Your task to perform on an android device: toggle pop-ups in chrome Image 0: 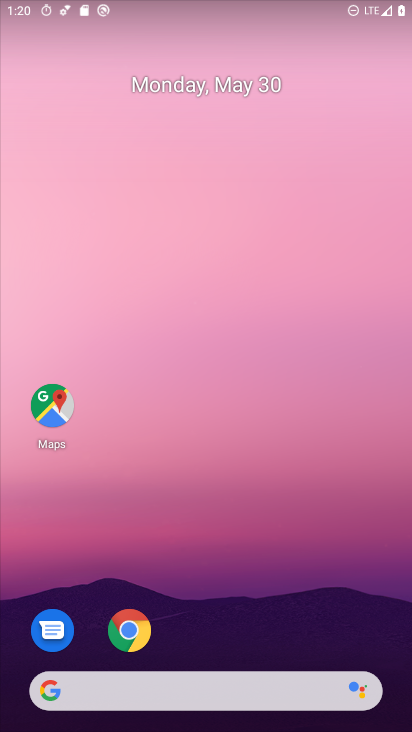
Step 0: drag from (276, 702) to (253, 252)
Your task to perform on an android device: toggle pop-ups in chrome Image 1: 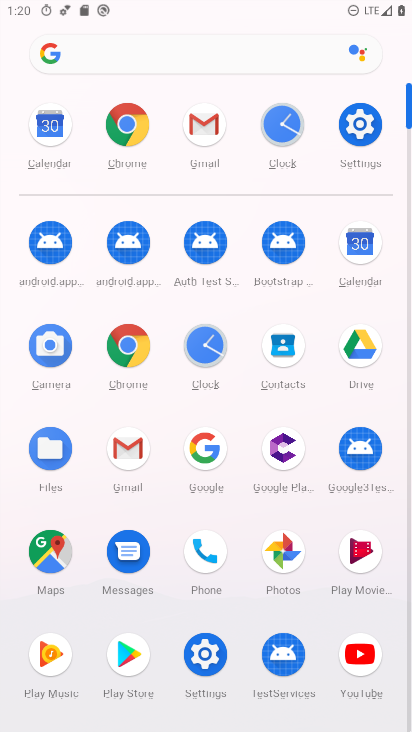
Step 1: click (122, 335)
Your task to perform on an android device: toggle pop-ups in chrome Image 2: 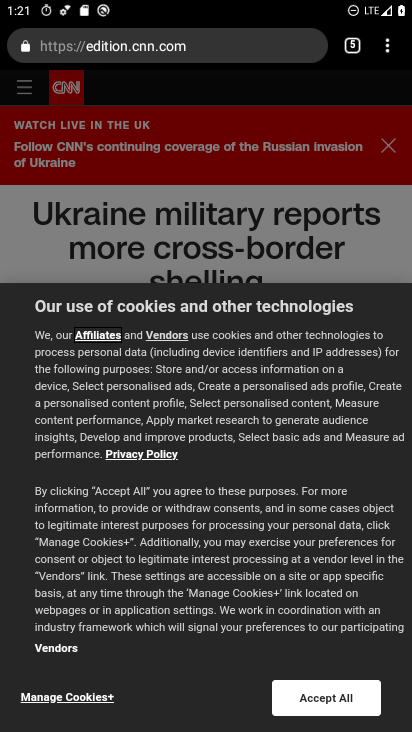
Step 2: click (386, 54)
Your task to perform on an android device: toggle pop-ups in chrome Image 3: 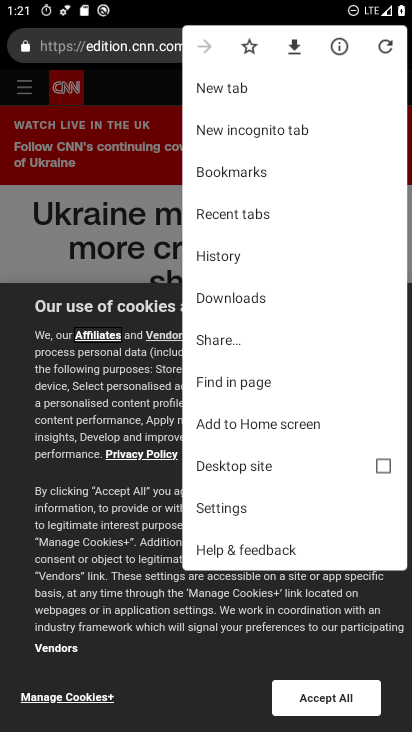
Step 3: click (231, 509)
Your task to perform on an android device: toggle pop-ups in chrome Image 4: 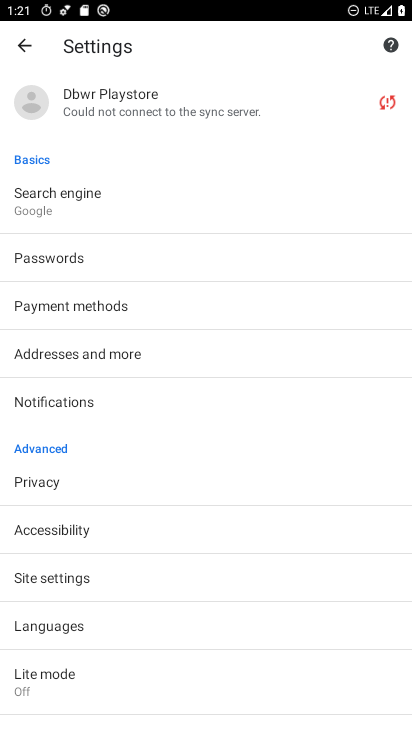
Step 4: click (55, 582)
Your task to perform on an android device: toggle pop-ups in chrome Image 5: 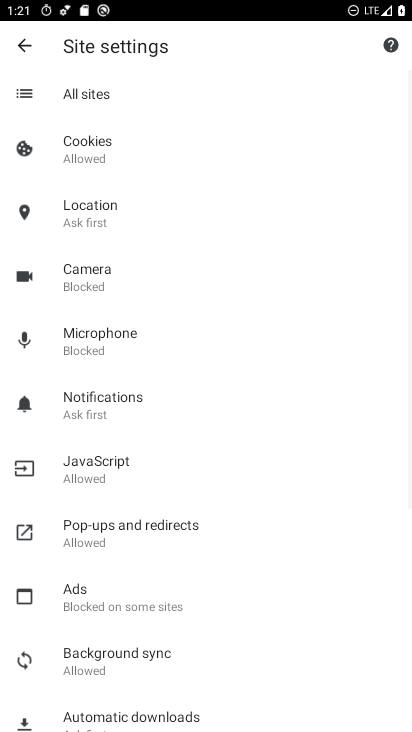
Step 5: click (112, 515)
Your task to perform on an android device: toggle pop-ups in chrome Image 6: 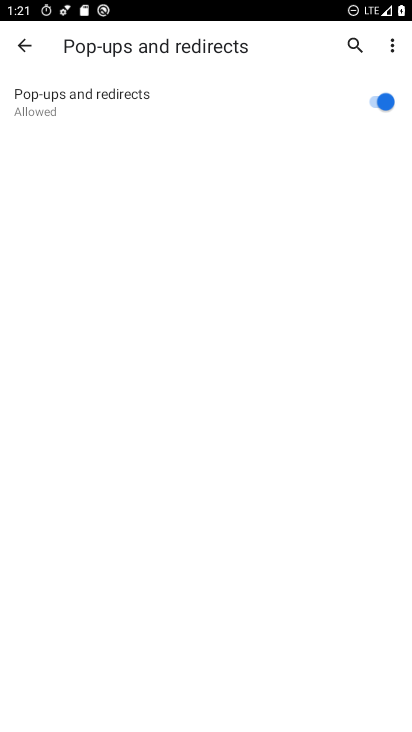
Step 6: task complete